Your task to perform on an android device: toggle data saver in the chrome app Image 0: 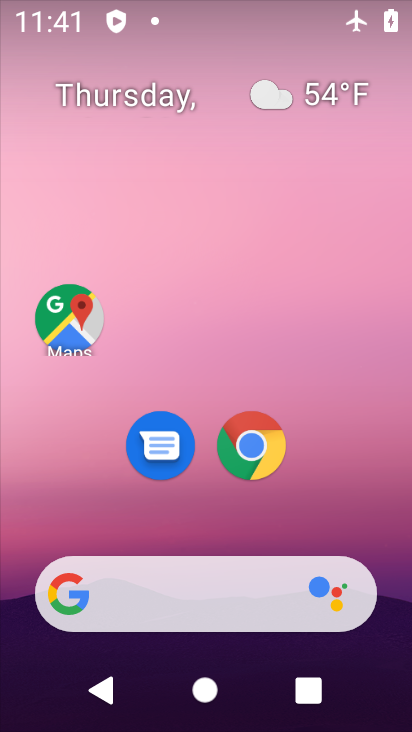
Step 0: drag from (407, 619) to (217, 68)
Your task to perform on an android device: toggle data saver in the chrome app Image 1: 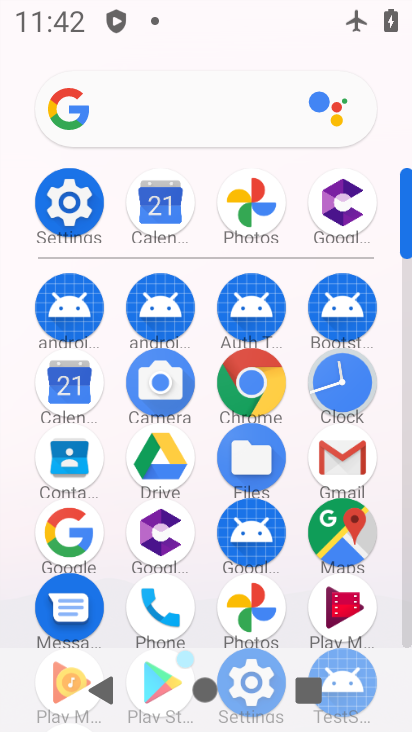
Step 1: click (272, 383)
Your task to perform on an android device: toggle data saver in the chrome app Image 2: 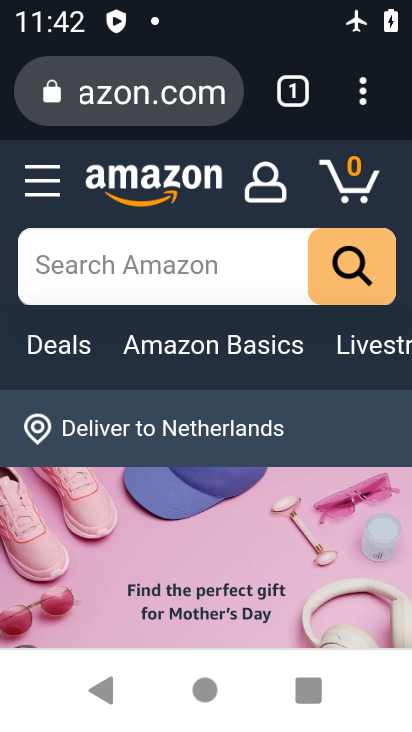
Step 2: press back button
Your task to perform on an android device: toggle data saver in the chrome app Image 3: 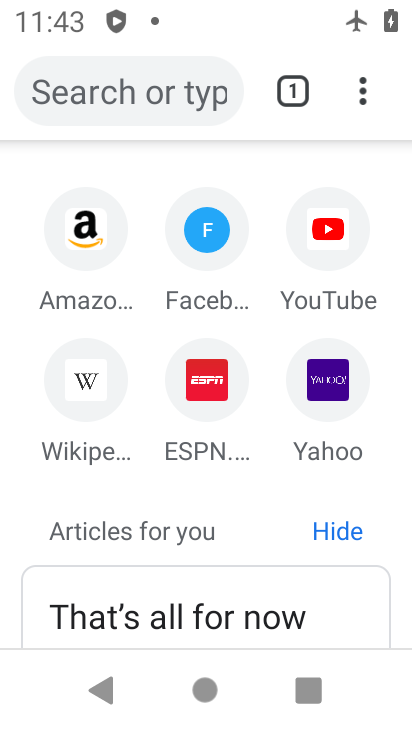
Step 3: click (362, 86)
Your task to perform on an android device: toggle data saver in the chrome app Image 4: 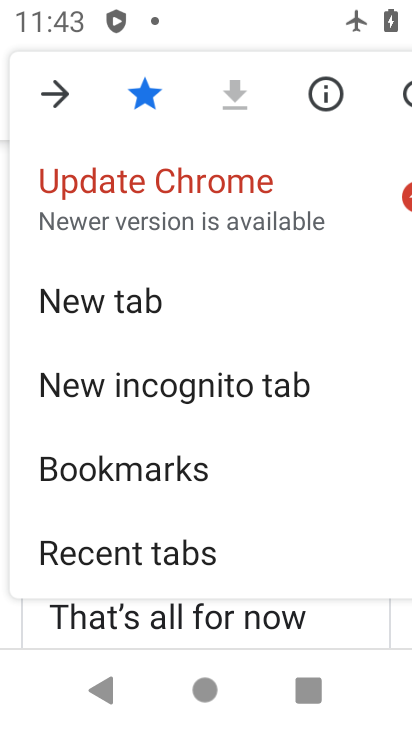
Step 4: drag from (157, 587) to (205, 190)
Your task to perform on an android device: toggle data saver in the chrome app Image 5: 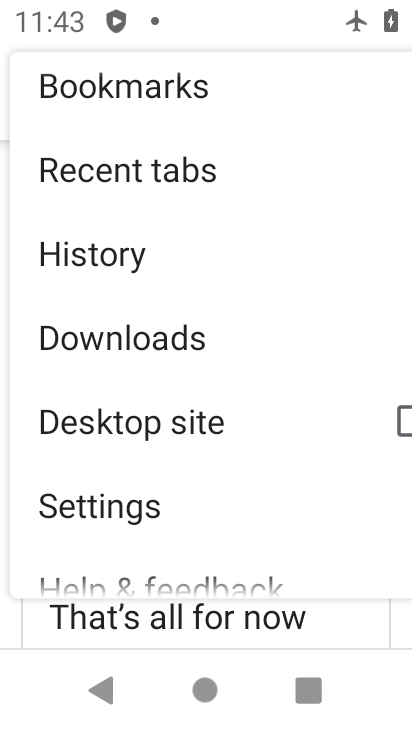
Step 5: click (152, 514)
Your task to perform on an android device: toggle data saver in the chrome app Image 6: 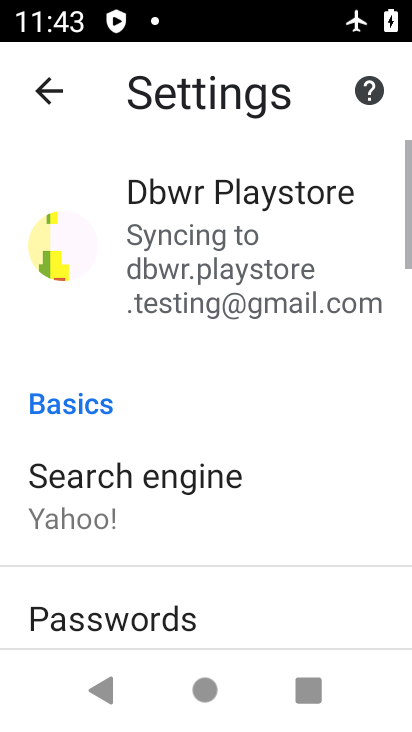
Step 6: drag from (114, 548) to (190, 199)
Your task to perform on an android device: toggle data saver in the chrome app Image 7: 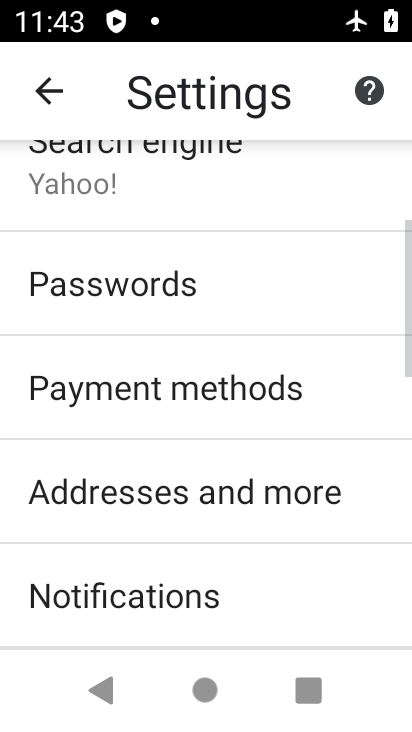
Step 7: drag from (118, 573) to (215, 278)
Your task to perform on an android device: toggle data saver in the chrome app Image 8: 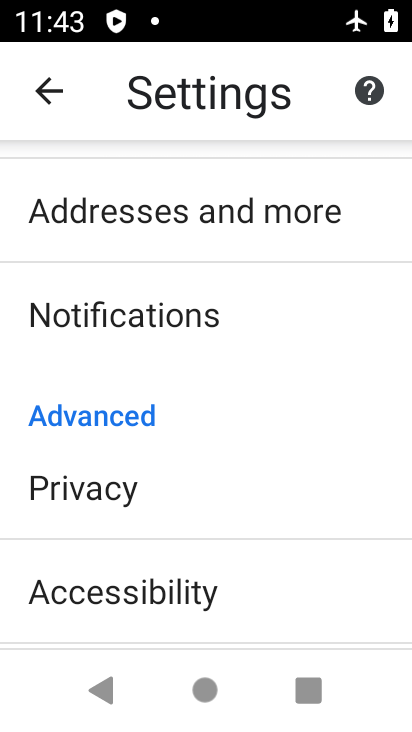
Step 8: drag from (152, 614) to (160, 216)
Your task to perform on an android device: toggle data saver in the chrome app Image 9: 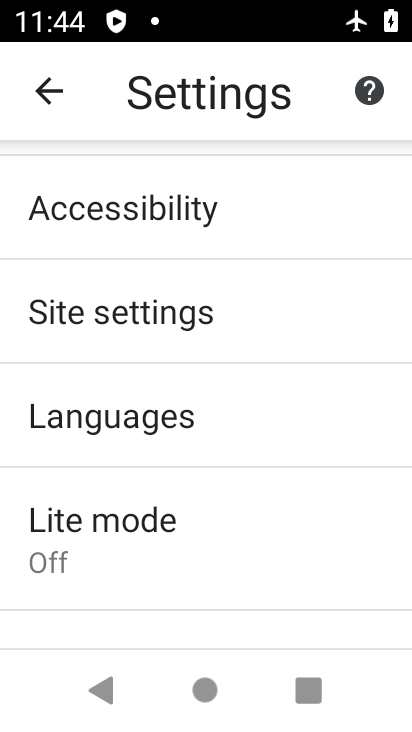
Step 9: click (148, 546)
Your task to perform on an android device: toggle data saver in the chrome app Image 10: 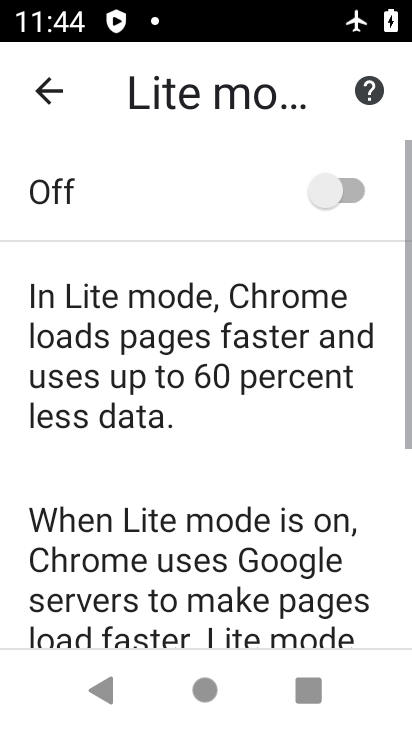
Step 10: click (328, 193)
Your task to perform on an android device: toggle data saver in the chrome app Image 11: 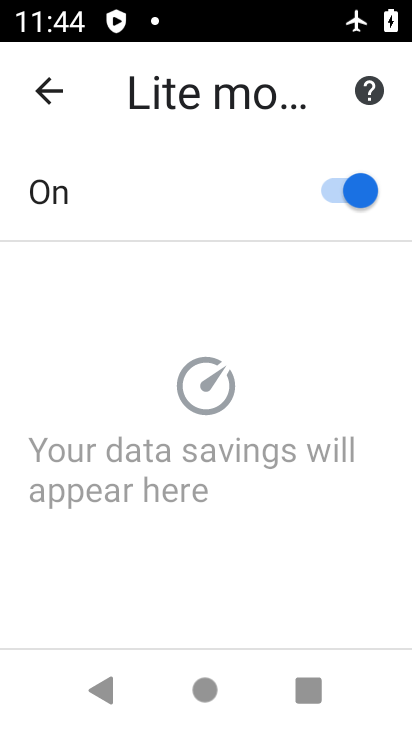
Step 11: task complete